Your task to perform on an android device: Open Chrome and go to the settings page Image 0: 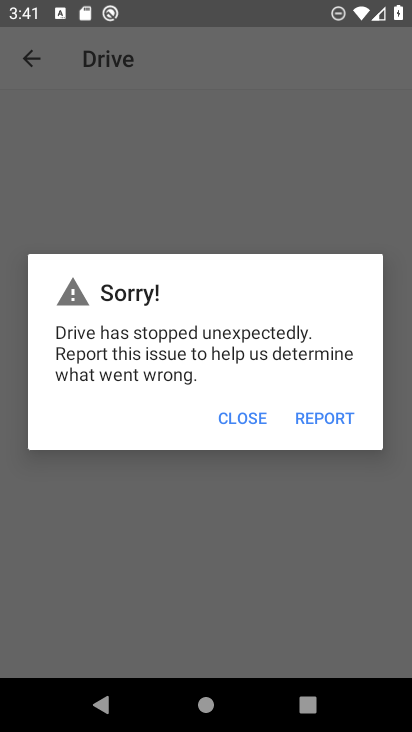
Step 0: press home button
Your task to perform on an android device: Open Chrome and go to the settings page Image 1: 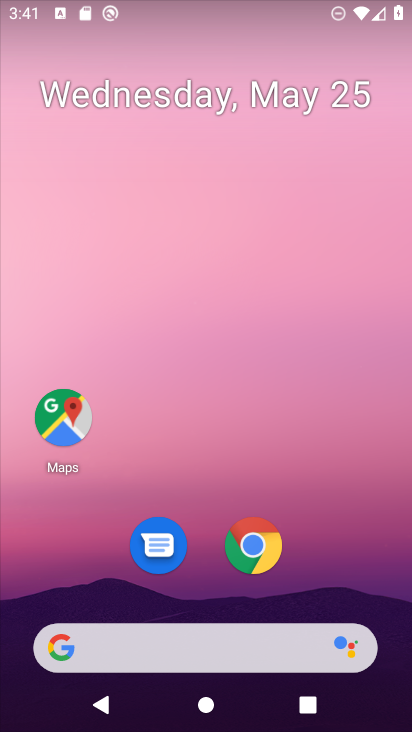
Step 1: drag from (345, 589) to (260, 54)
Your task to perform on an android device: Open Chrome and go to the settings page Image 2: 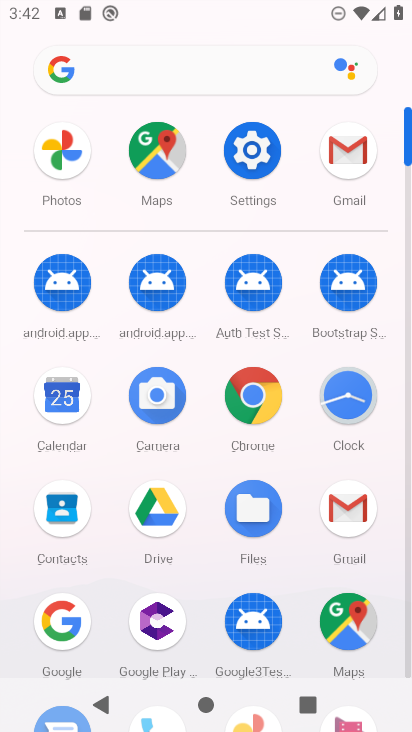
Step 2: click (238, 163)
Your task to perform on an android device: Open Chrome and go to the settings page Image 3: 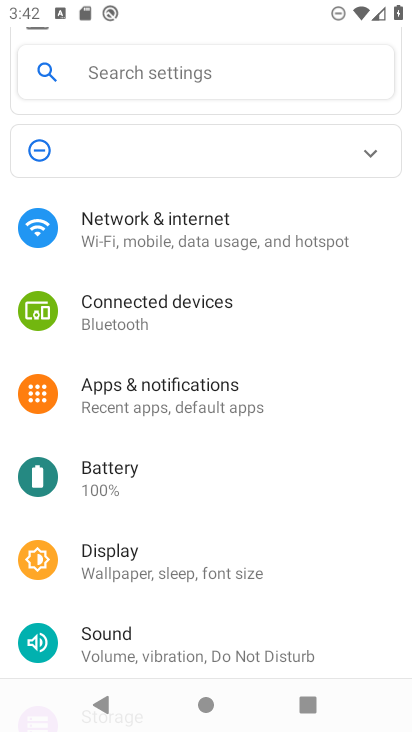
Step 3: task complete